Your task to perform on an android device: open sync settings in chrome Image 0: 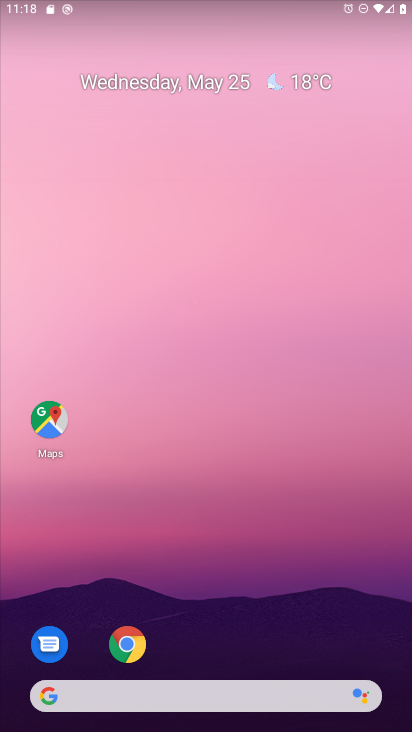
Step 0: click (124, 641)
Your task to perform on an android device: open sync settings in chrome Image 1: 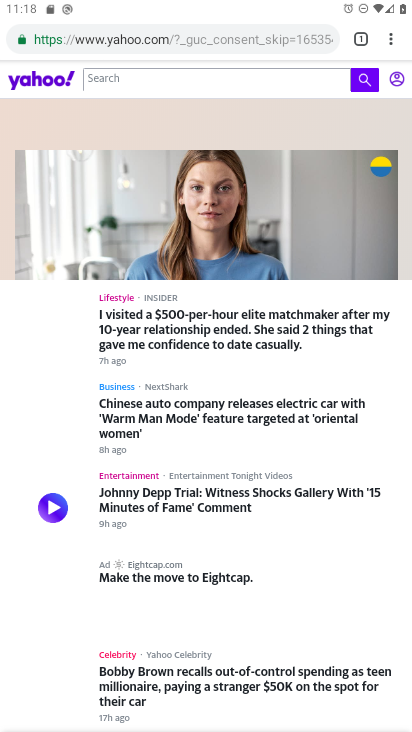
Step 1: click (395, 39)
Your task to perform on an android device: open sync settings in chrome Image 2: 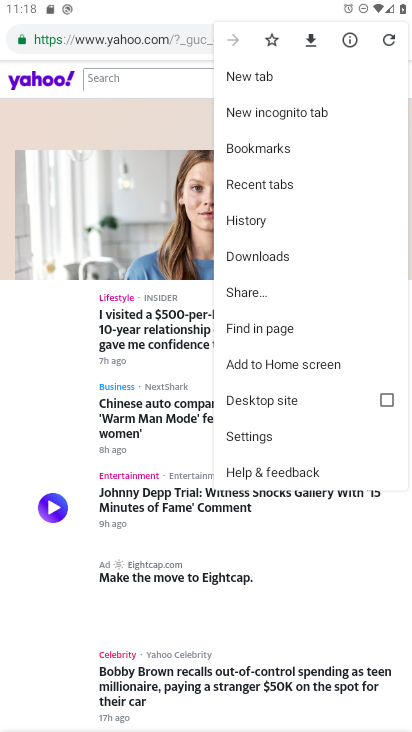
Step 2: click (284, 433)
Your task to perform on an android device: open sync settings in chrome Image 3: 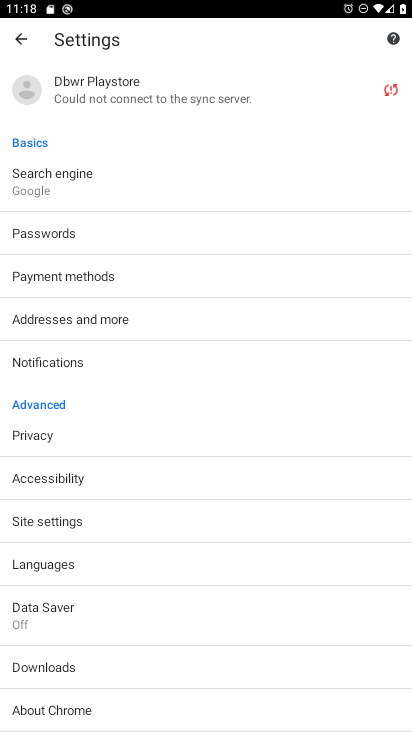
Step 3: click (131, 93)
Your task to perform on an android device: open sync settings in chrome Image 4: 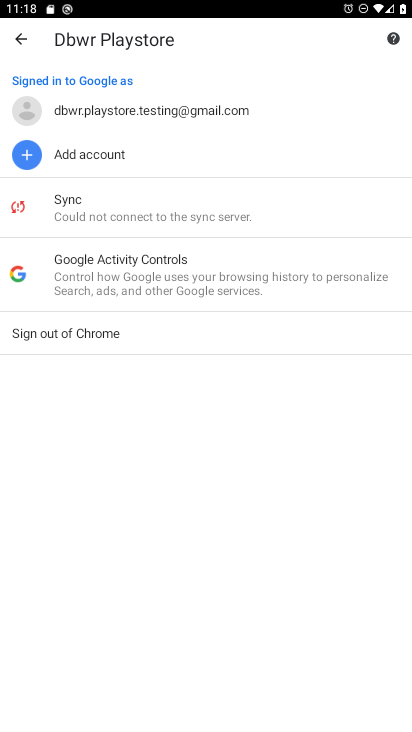
Step 4: click (103, 208)
Your task to perform on an android device: open sync settings in chrome Image 5: 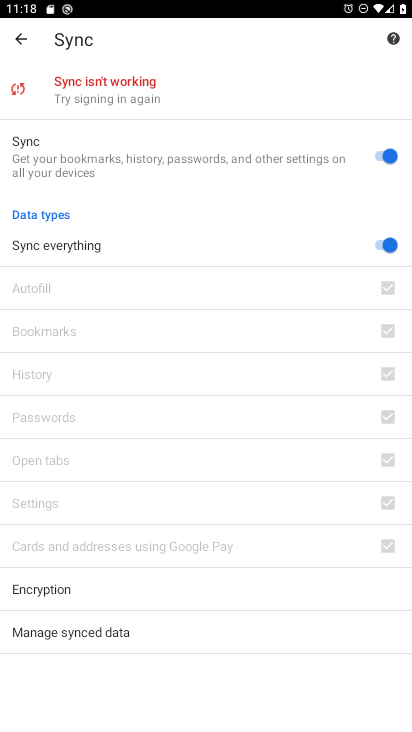
Step 5: task complete